Your task to perform on an android device: turn off priority inbox in the gmail app Image 0: 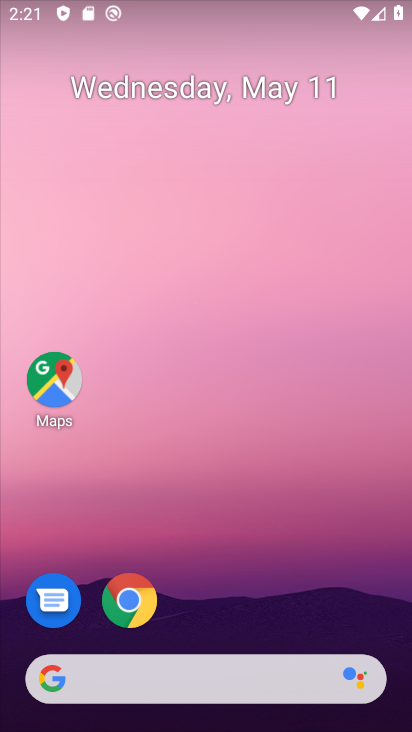
Step 0: drag from (186, 545) to (244, 65)
Your task to perform on an android device: turn off priority inbox in the gmail app Image 1: 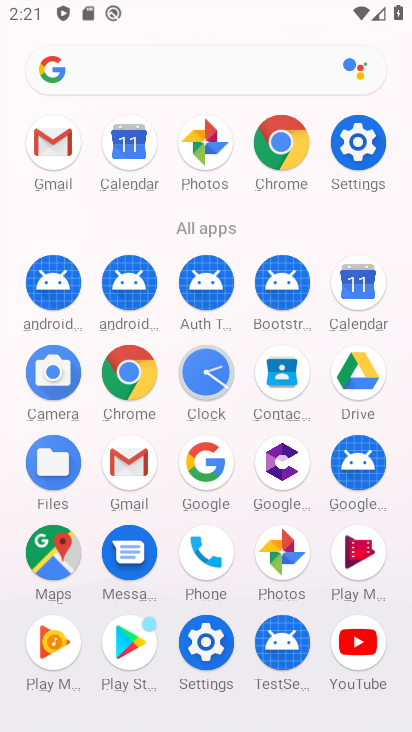
Step 1: click (128, 464)
Your task to perform on an android device: turn off priority inbox in the gmail app Image 2: 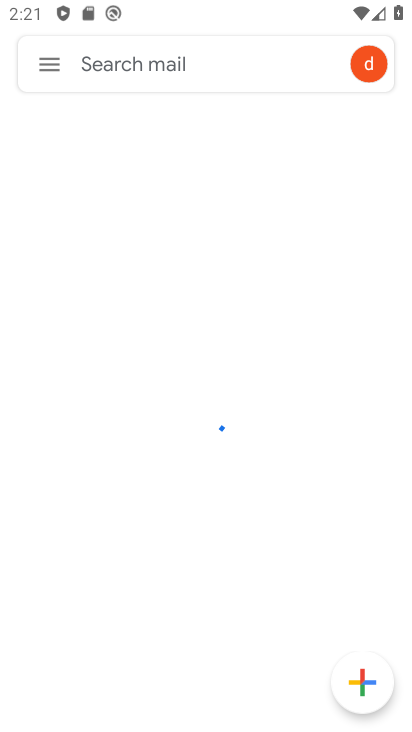
Step 2: click (46, 57)
Your task to perform on an android device: turn off priority inbox in the gmail app Image 3: 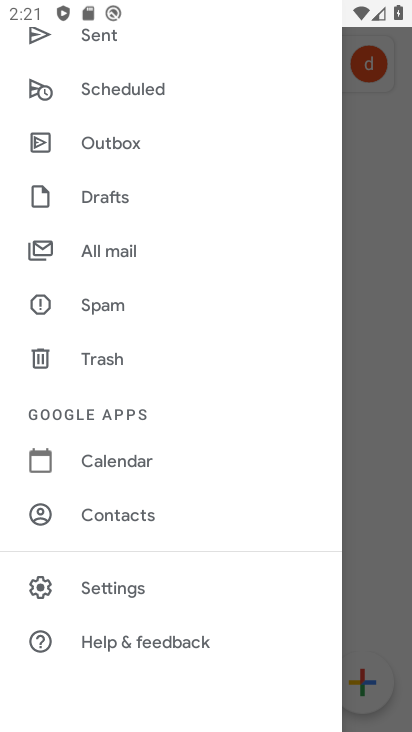
Step 3: click (108, 582)
Your task to perform on an android device: turn off priority inbox in the gmail app Image 4: 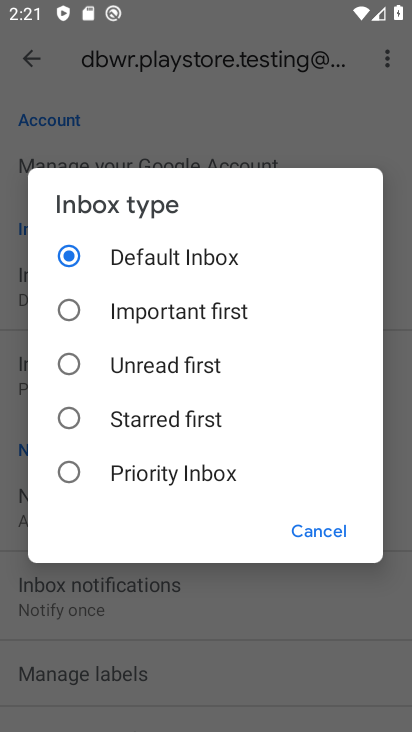
Step 4: task complete